Your task to perform on an android device: change keyboard looks Image 0: 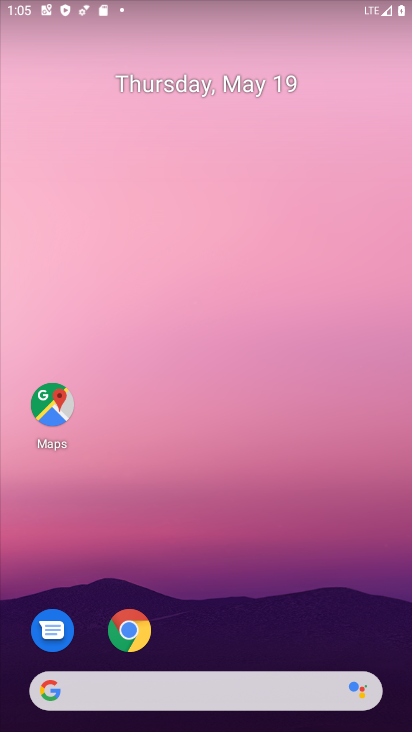
Step 0: drag from (218, 659) to (223, 29)
Your task to perform on an android device: change keyboard looks Image 1: 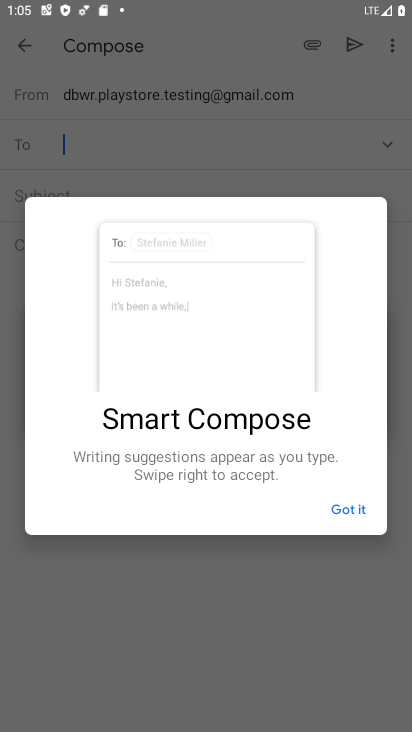
Step 1: click (352, 506)
Your task to perform on an android device: change keyboard looks Image 2: 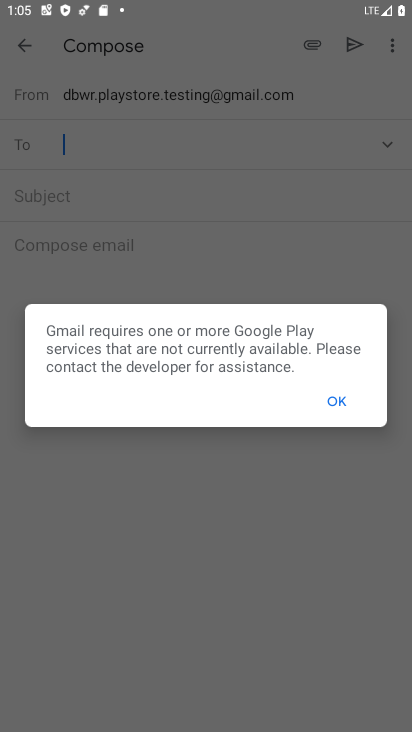
Step 2: press home button
Your task to perform on an android device: change keyboard looks Image 3: 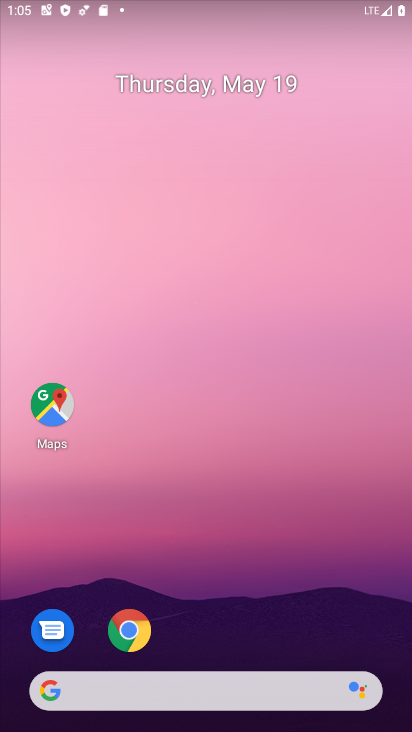
Step 3: drag from (210, 654) to (179, 16)
Your task to perform on an android device: change keyboard looks Image 4: 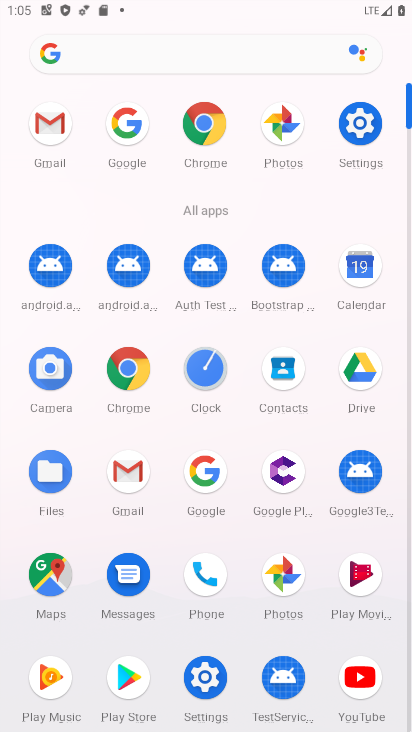
Step 4: click (358, 137)
Your task to perform on an android device: change keyboard looks Image 5: 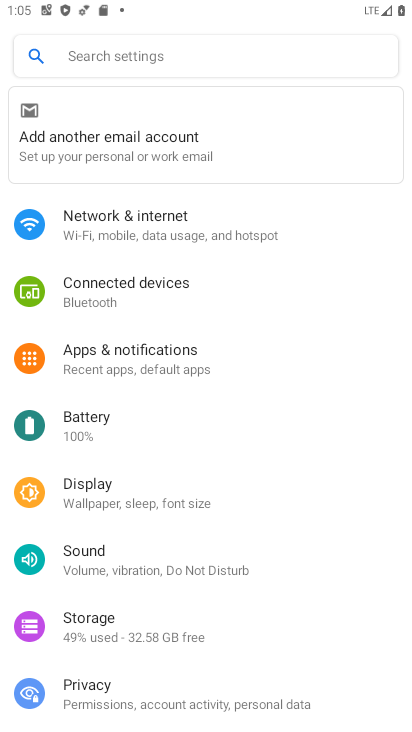
Step 5: drag from (265, 634) to (200, 144)
Your task to perform on an android device: change keyboard looks Image 6: 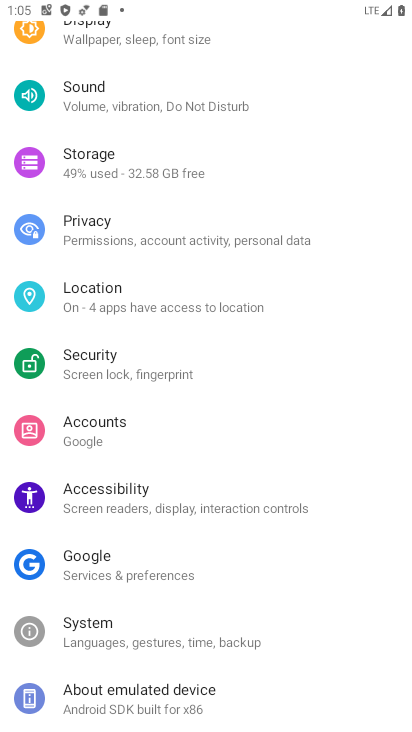
Step 6: click (97, 625)
Your task to perform on an android device: change keyboard looks Image 7: 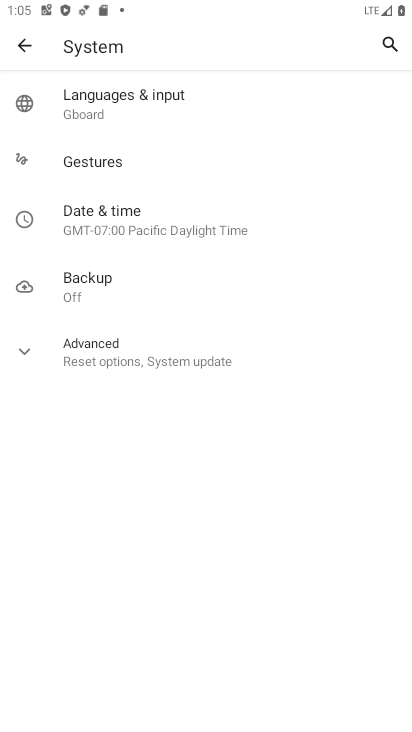
Step 7: click (120, 112)
Your task to perform on an android device: change keyboard looks Image 8: 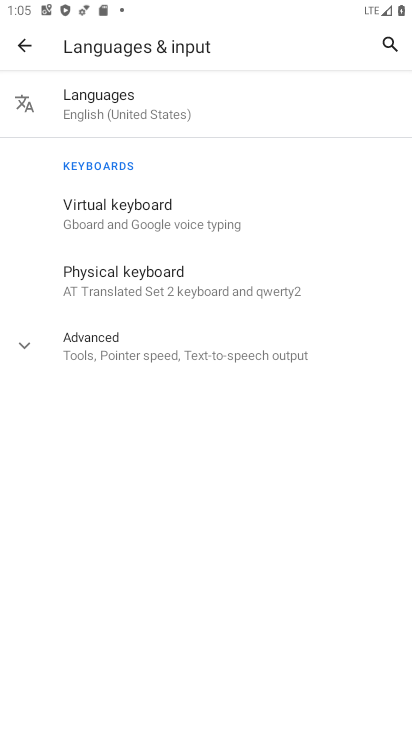
Step 8: click (106, 230)
Your task to perform on an android device: change keyboard looks Image 9: 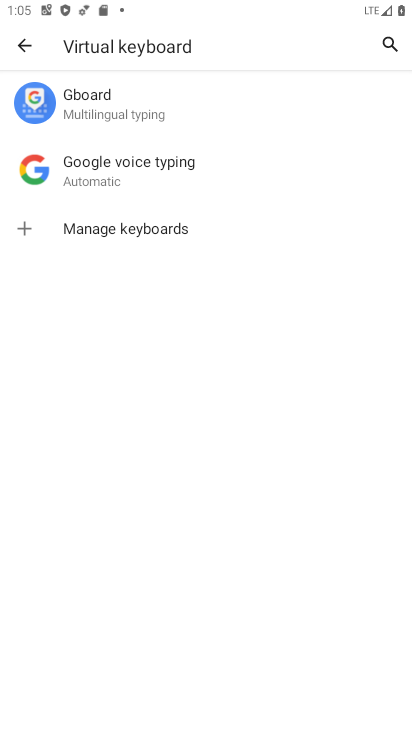
Step 9: click (97, 106)
Your task to perform on an android device: change keyboard looks Image 10: 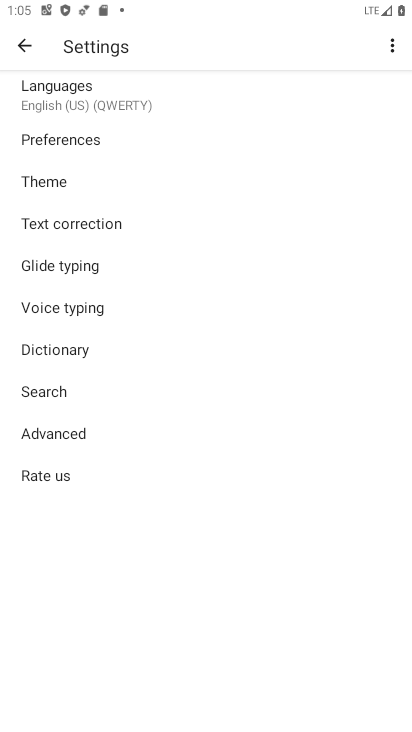
Step 10: click (67, 173)
Your task to perform on an android device: change keyboard looks Image 11: 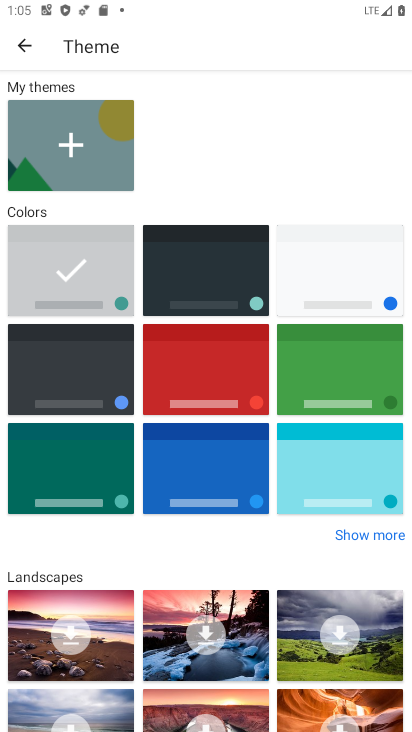
Step 11: click (118, 254)
Your task to perform on an android device: change keyboard looks Image 12: 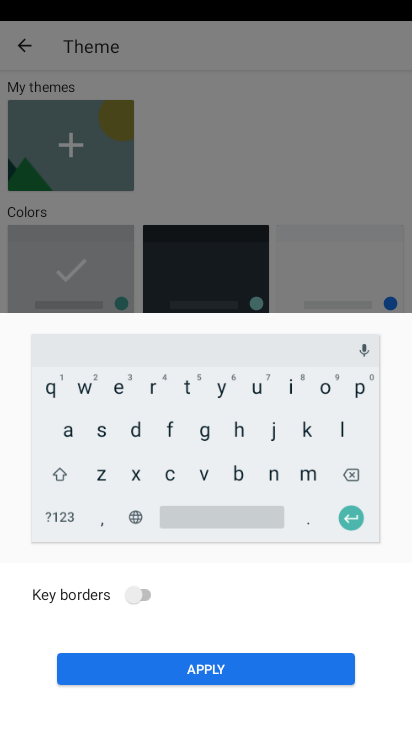
Step 12: click (198, 281)
Your task to perform on an android device: change keyboard looks Image 13: 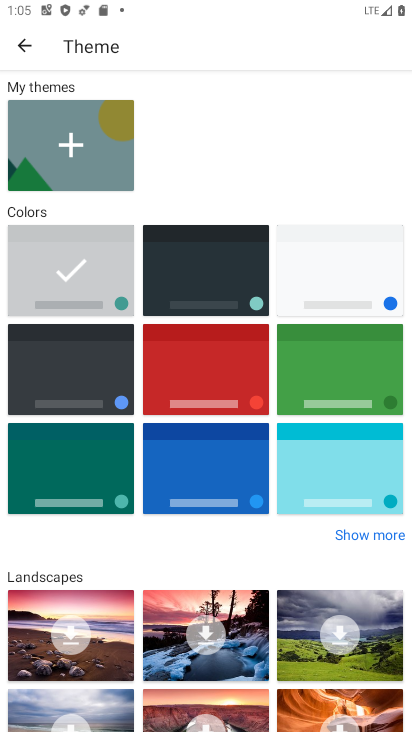
Step 13: click (195, 277)
Your task to perform on an android device: change keyboard looks Image 14: 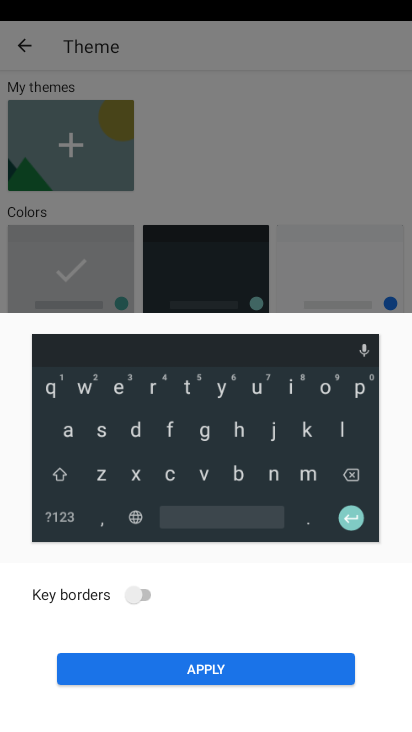
Step 14: click (233, 657)
Your task to perform on an android device: change keyboard looks Image 15: 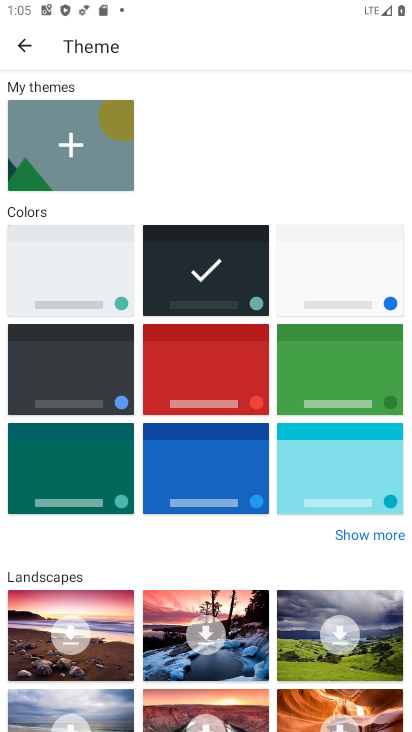
Step 15: task complete